Your task to perform on an android device: open chrome privacy settings Image 0: 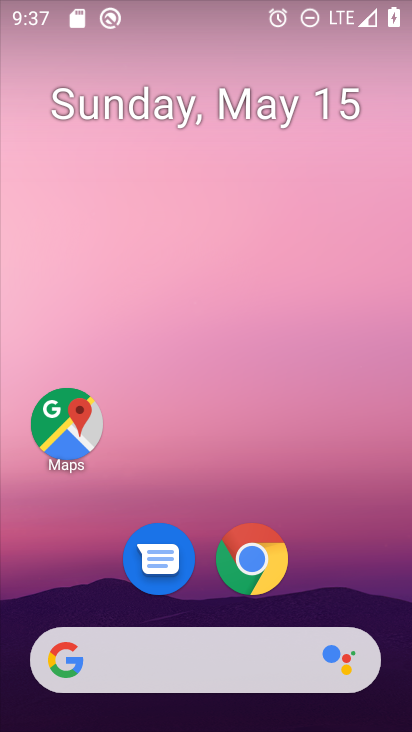
Step 0: click (80, 439)
Your task to perform on an android device: open chrome privacy settings Image 1: 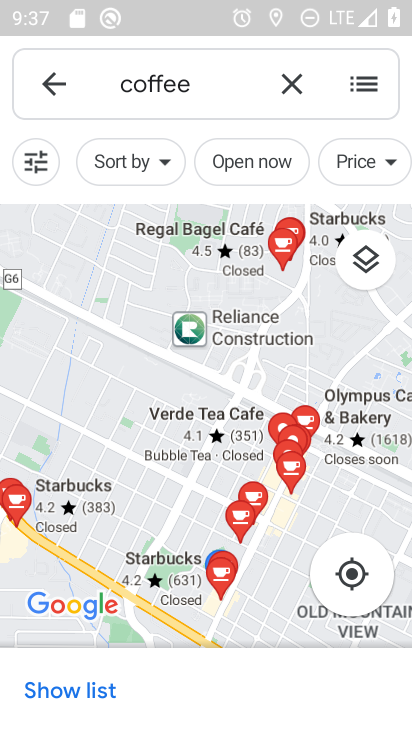
Step 1: press home button
Your task to perform on an android device: open chrome privacy settings Image 2: 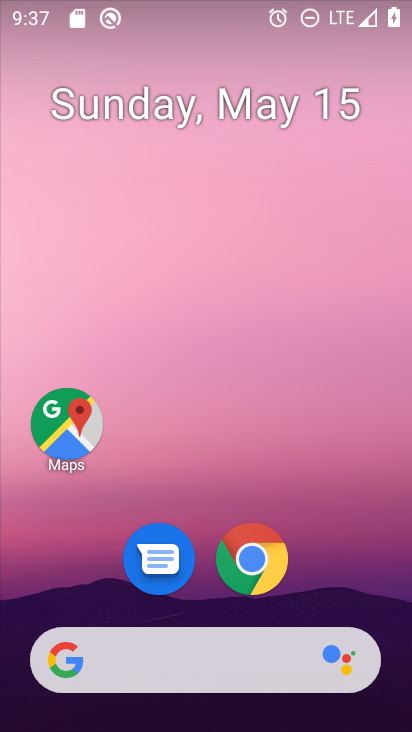
Step 2: drag from (315, 578) to (342, 180)
Your task to perform on an android device: open chrome privacy settings Image 3: 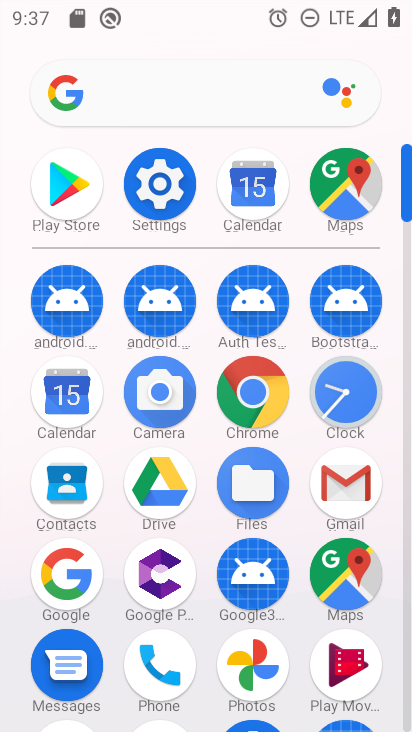
Step 3: click (168, 186)
Your task to perform on an android device: open chrome privacy settings Image 4: 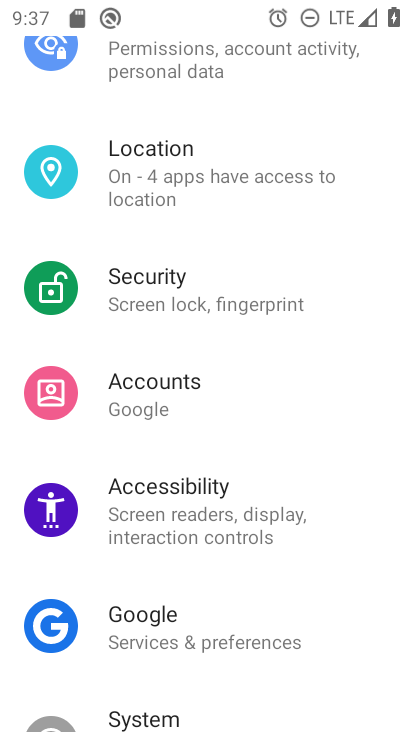
Step 4: press home button
Your task to perform on an android device: open chrome privacy settings Image 5: 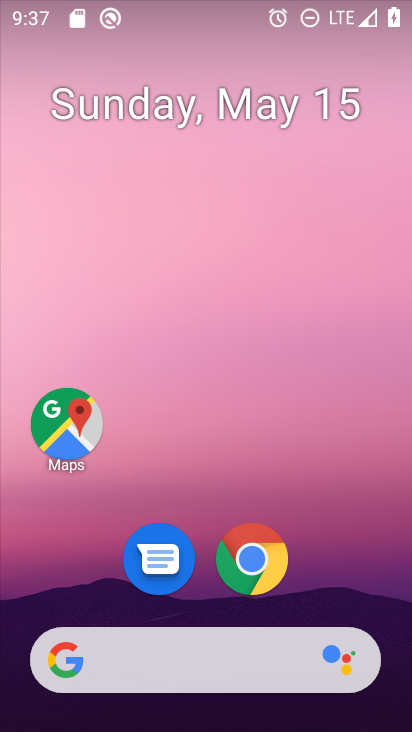
Step 5: click (240, 562)
Your task to perform on an android device: open chrome privacy settings Image 6: 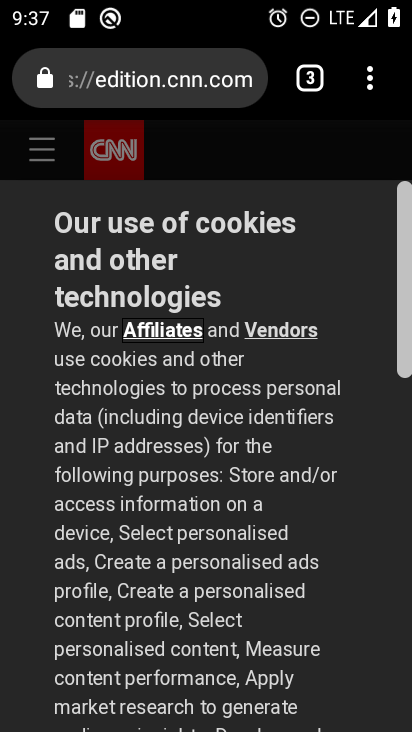
Step 6: click (380, 96)
Your task to perform on an android device: open chrome privacy settings Image 7: 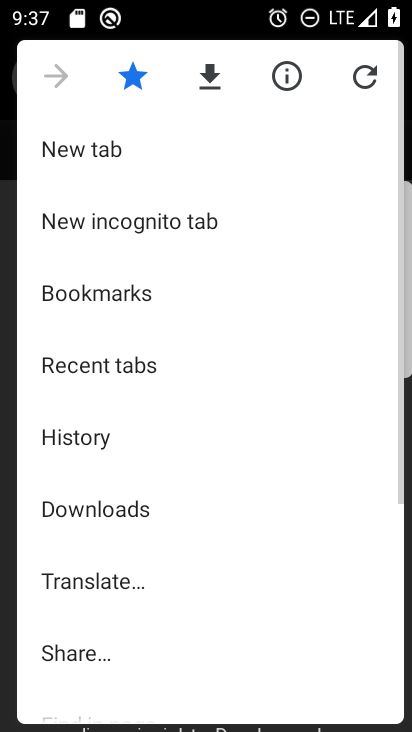
Step 7: drag from (220, 620) to (270, 372)
Your task to perform on an android device: open chrome privacy settings Image 8: 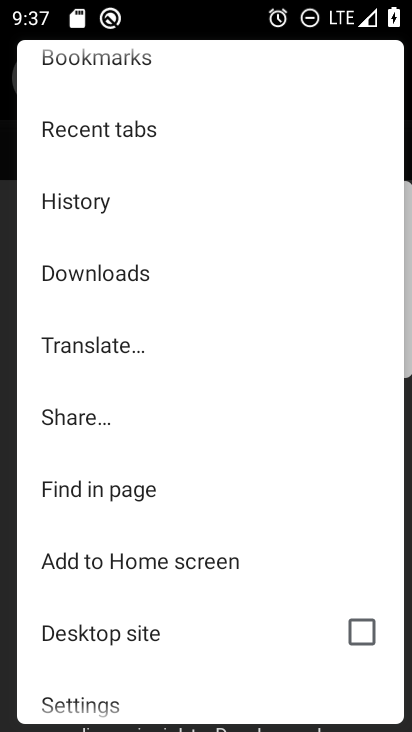
Step 8: click (100, 696)
Your task to perform on an android device: open chrome privacy settings Image 9: 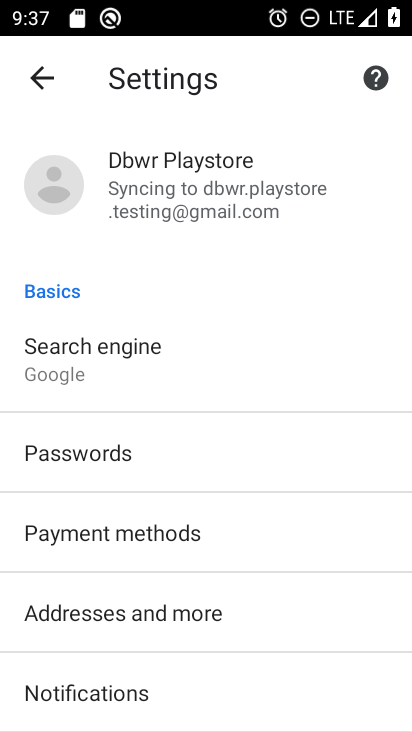
Step 9: drag from (101, 497) to (163, 264)
Your task to perform on an android device: open chrome privacy settings Image 10: 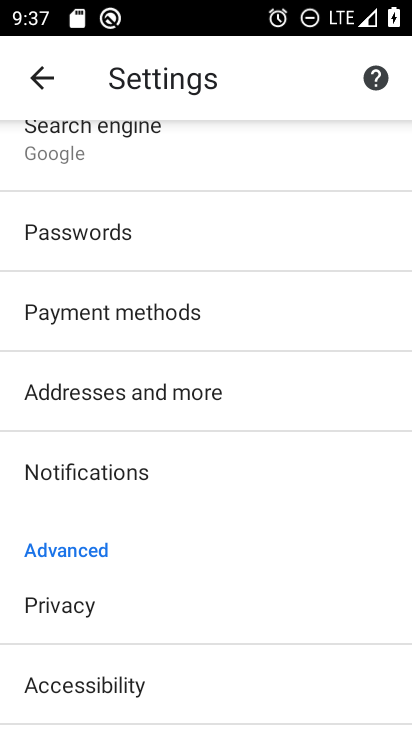
Step 10: click (127, 623)
Your task to perform on an android device: open chrome privacy settings Image 11: 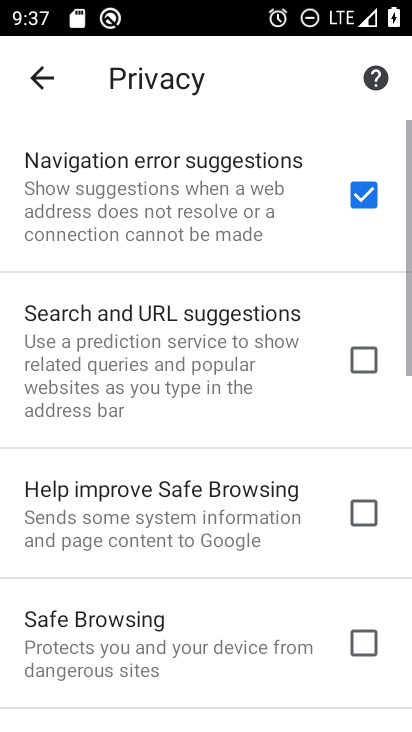
Step 11: task complete